Your task to perform on an android device: turn pop-ups on in chrome Image 0: 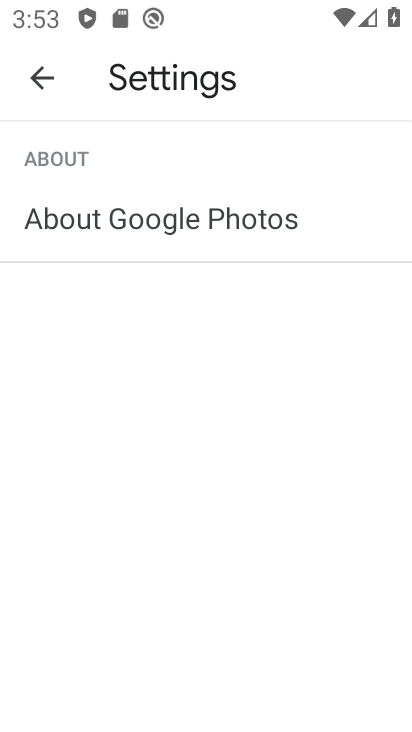
Step 0: press home button
Your task to perform on an android device: turn pop-ups on in chrome Image 1: 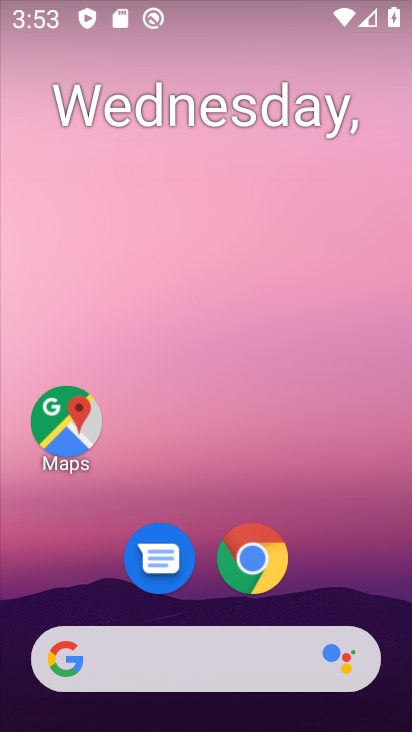
Step 1: click (269, 564)
Your task to perform on an android device: turn pop-ups on in chrome Image 2: 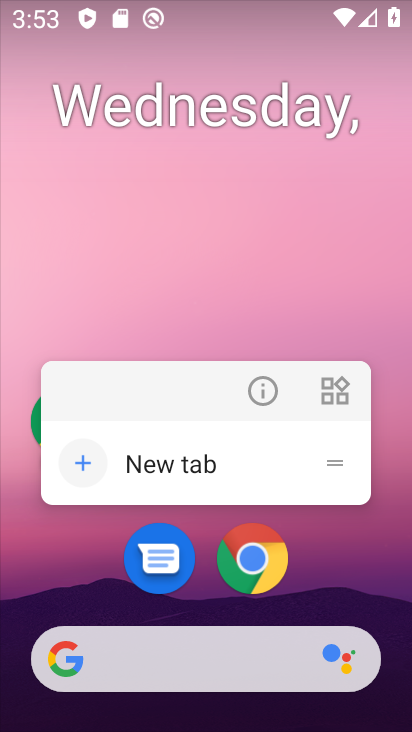
Step 2: click (269, 564)
Your task to perform on an android device: turn pop-ups on in chrome Image 3: 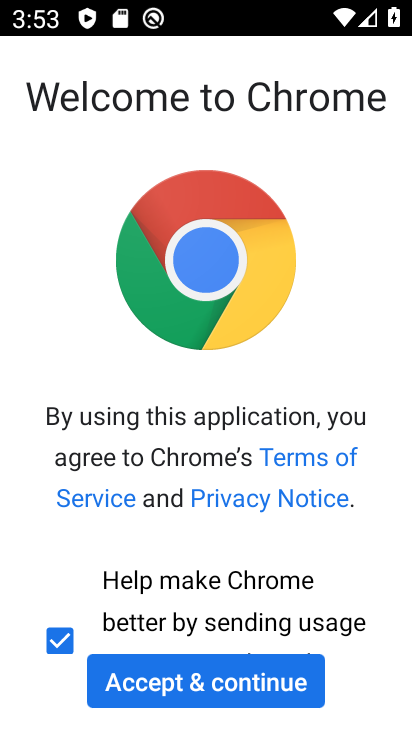
Step 3: click (219, 668)
Your task to perform on an android device: turn pop-ups on in chrome Image 4: 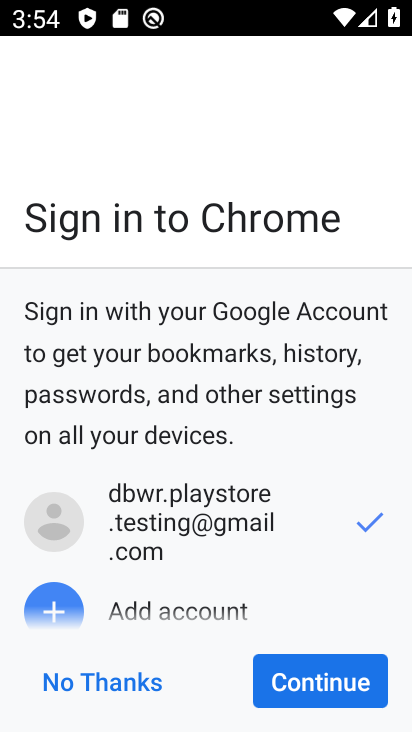
Step 4: click (336, 669)
Your task to perform on an android device: turn pop-ups on in chrome Image 5: 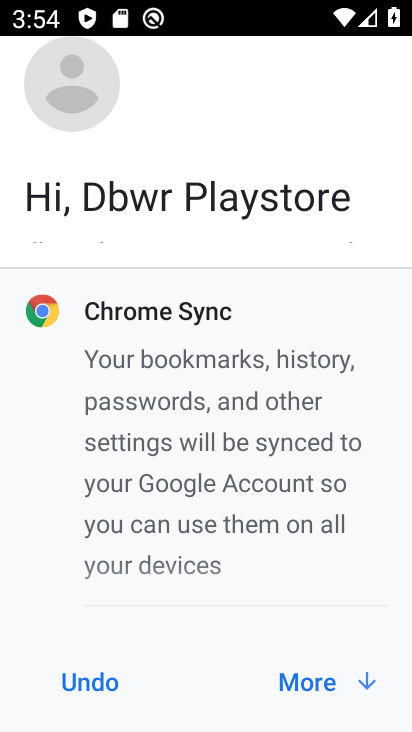
Step 5: click (320, 676)
Your task to perform on an android device: turn pop-ups on in chrome Image 6: 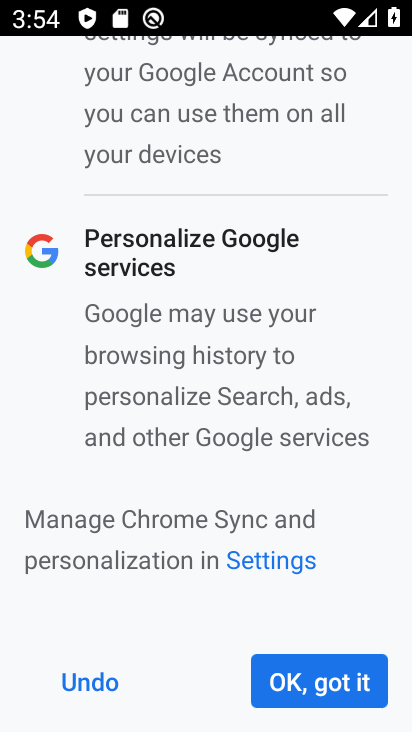
Step 6: click (320, 676)
Your task to perform on an android device: turn pop-ups on in chrome Image 7: 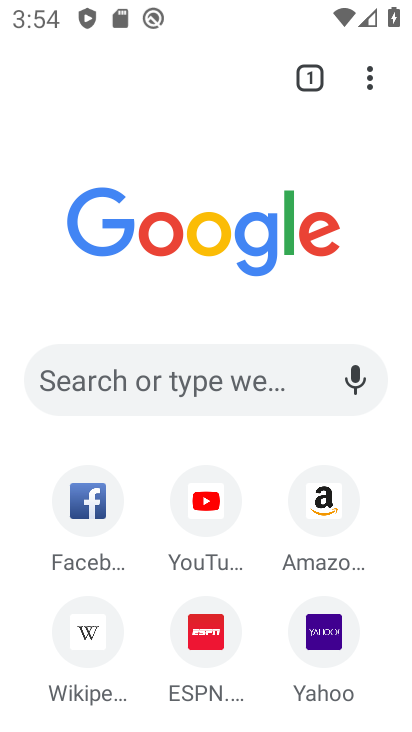
Step 7: drag from (368, 83) to (235, 637)
Your task to perform on an android device: turn pop-ups on in chrome Image 8: 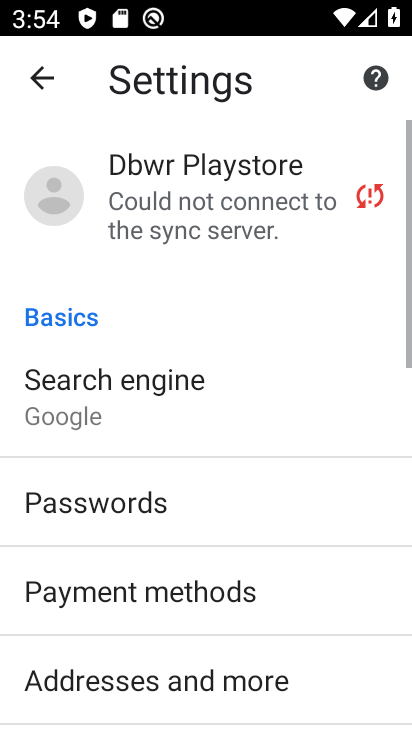
Step 8: drag from (251, 579) to (306, 207)
Your task to perform on an android device: turn pop-ups on in chrome Image 9: 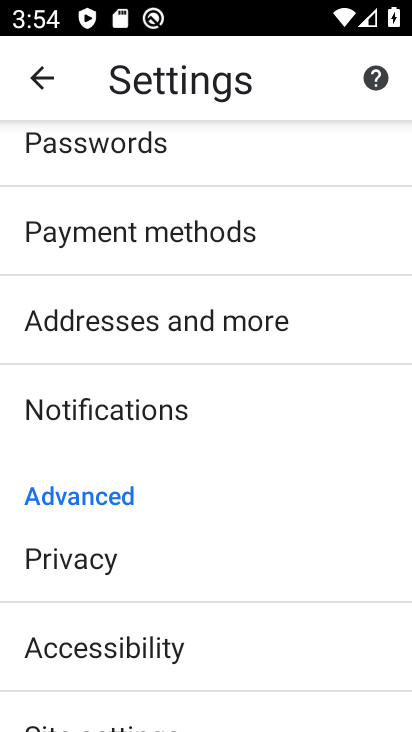
Step 9: drag from (251, 637) to (295, 203)
Your task to perform on an android device: turn pop-ups on in chrome Image 10: 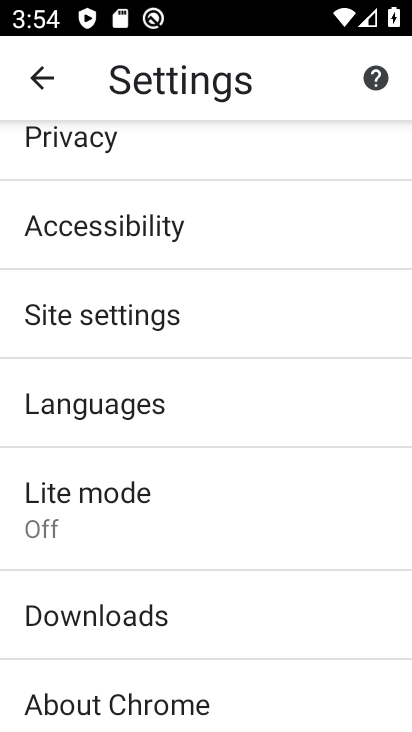
Step 10: click (163, 324)
Your task to perform on an android device: turn pop-ups on in chrome Image 11: 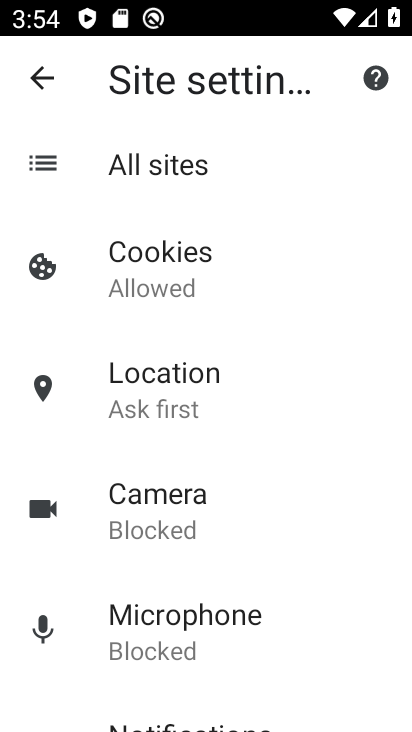
Step 11: drag from (261, 603) to (301, 195)
Your task to perform on an android device: turn pop-ups on in chrome Image 12: 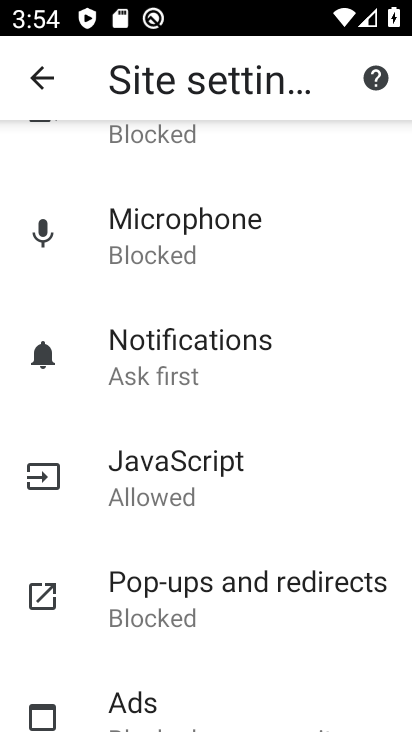
Step 12: click (273, 612)
Your task to perform on an android device: turn pop-ups on in chrome Image 13: 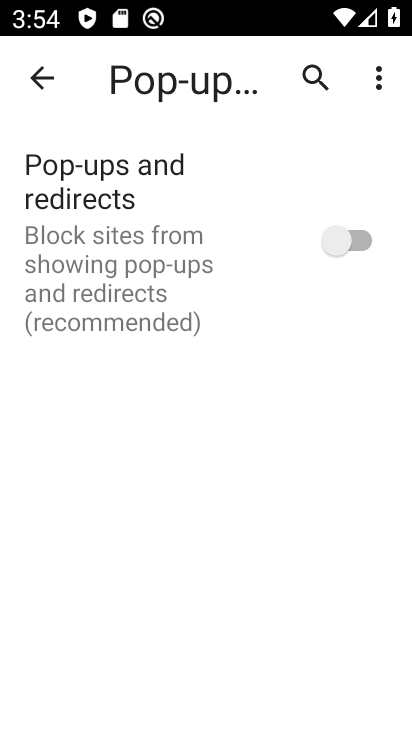
Step 13: click (343, 247)
Your task to perform on an android device: turn pop-ups on in chrome Image 14: 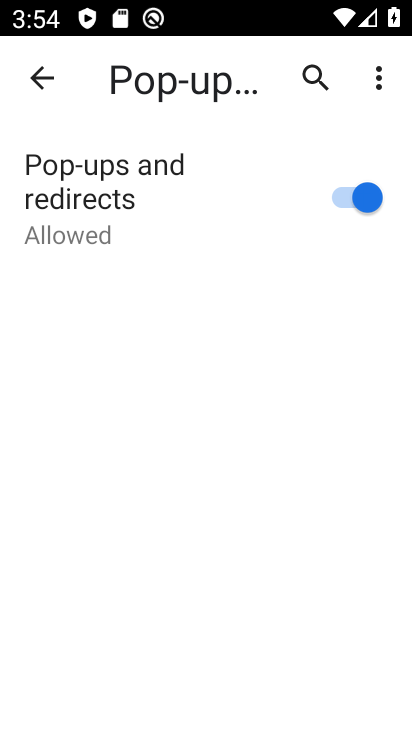
Step 14: task complete